Your task to perform on an android device: empty trash in the gmail app Image 0: 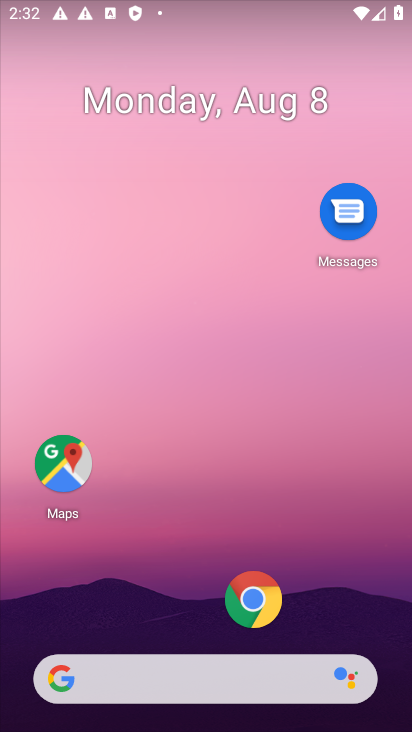
Step 0: drag from (162, 610) to (298, 7)
Your task to perform on an android device: empty trash in the gmail app Image 1: 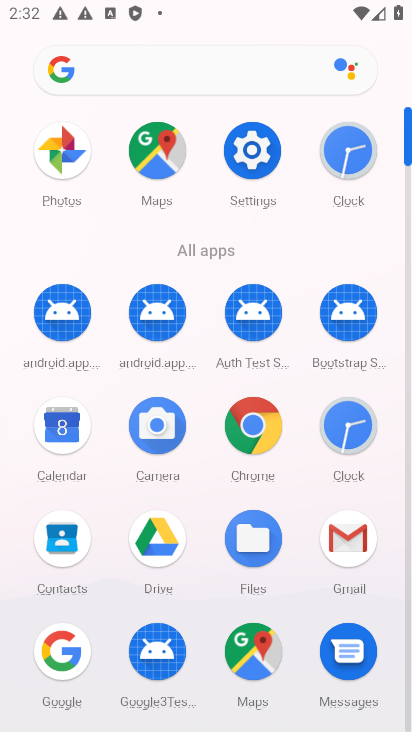
Step 1: click (358, 537)
Your task to perform on an android device: empty trash in the gmail app Image 2: 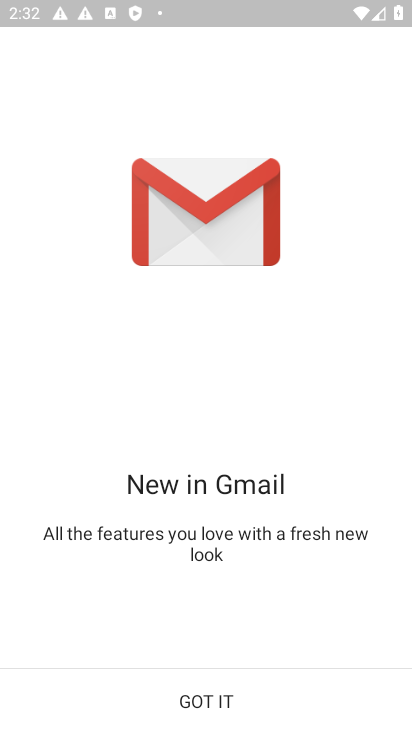
Step 2: click (279, 705)
Your task to perform on an android device: empty trash in the gmail app Image 3: 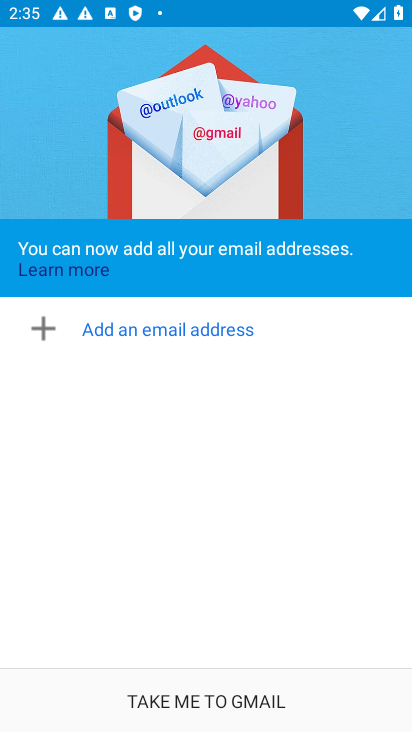
Step 3: task complete